Your task to perform on an android device: turn on notifications settings in the gmail app Image 0: 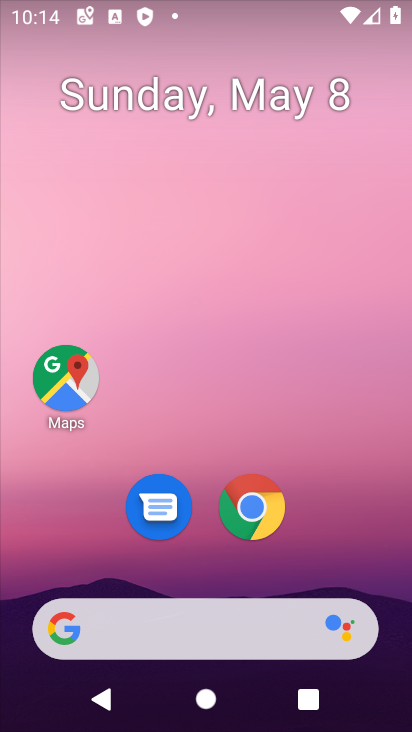
Step 0: drag from (237, 629) to (187, 160)
Your task to perform on an android device: turn on notifications settings in the gmail app Image 1: 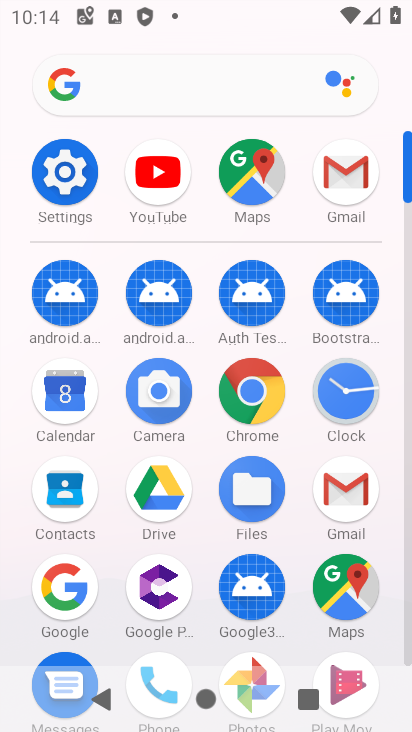
Step 1: click (334, 176)
Your task to perform on an android device: turn on notifications settings in the gmail app Image 2: 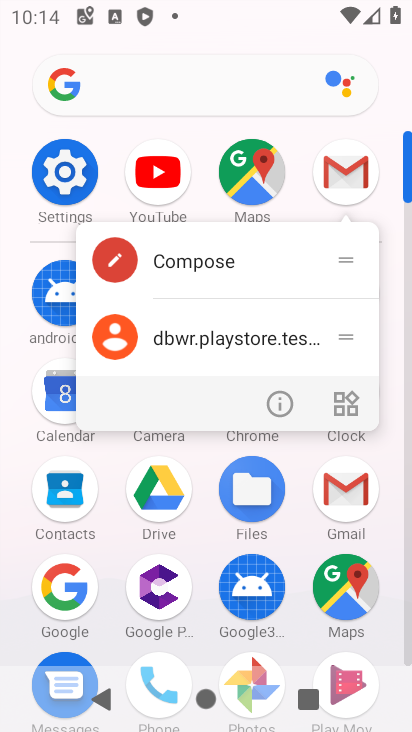
Step 2: click (281, 397)
Your task to perform on an android device: turn on notifications settings in the gmail app Image 3: 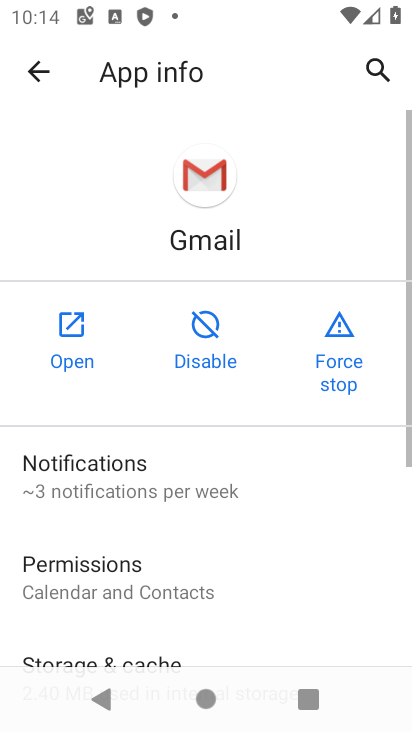
Step 3: click (152, 467)
Your task to perform on an android device: turn on notifications settings in the gmail app Image 4: 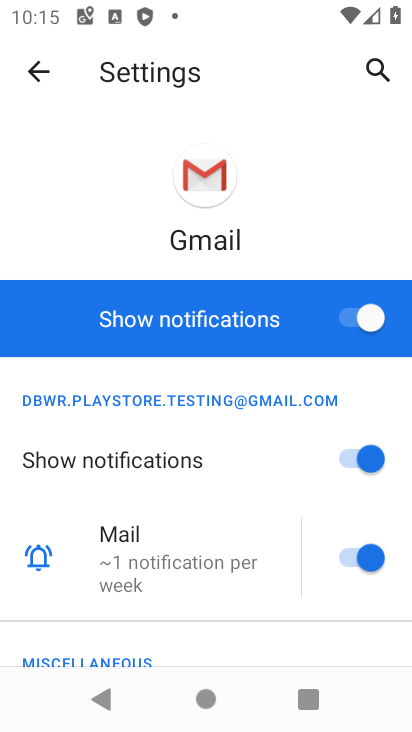
Step 4: task complete